Your task to perform on an android device: Set the phone to "Do not disturb". Image 0: 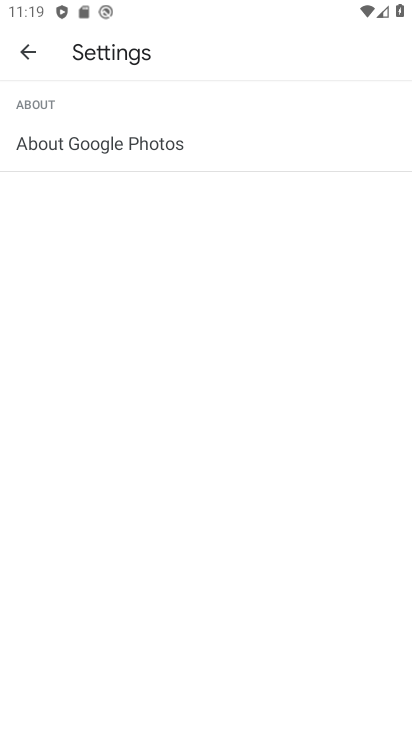
Step 0: press home button
Your task to perform on an android device: Set the phone to "Do not disturb". Image 1: 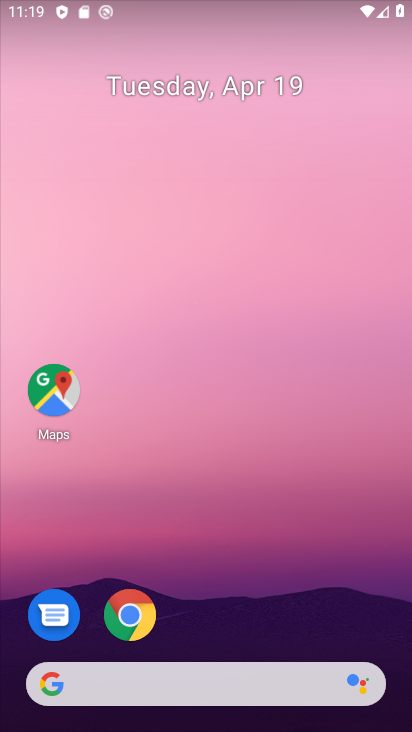
Step 1: drag from (234, 667) to (209, 215)
Your task to perform on an android device: Set the phone to "Do not disturb". Image 2: 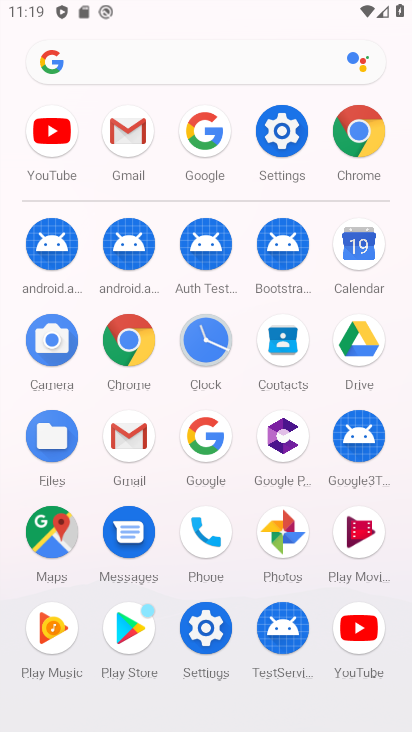
Step 2: click (290, 131)
Your task to perform on an android device: Set the phone to "Do not disturb". Image 3: 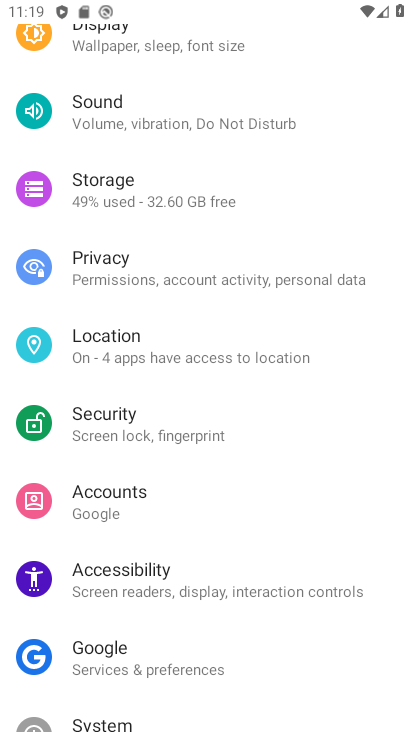
Step 3: click (137, 122)
Your task to perform on an android device: Set the phone to "Do not disturb". Image 4: 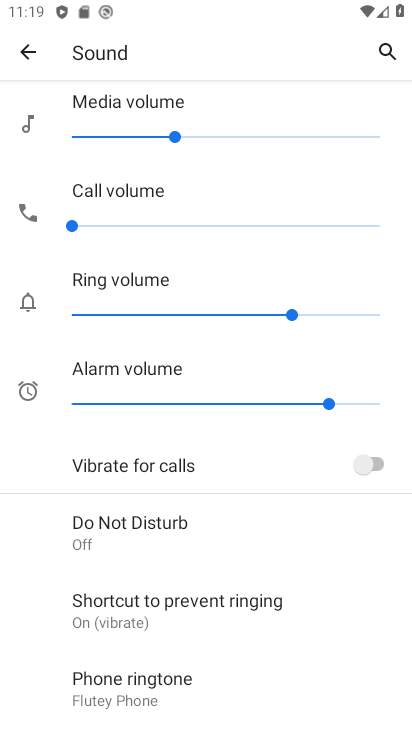
Step 4: drag from (192, 657) to (173, 280)
Your task to perform on an android device: Set the phone to "Do not disturb". Image 5: 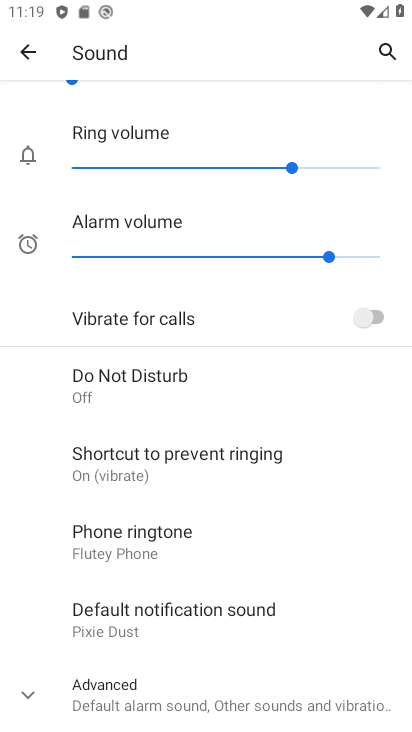
Step 5: click (134, 386)
Your task to perform on an android device: Set the phone to "Do not disturb". Image 6: 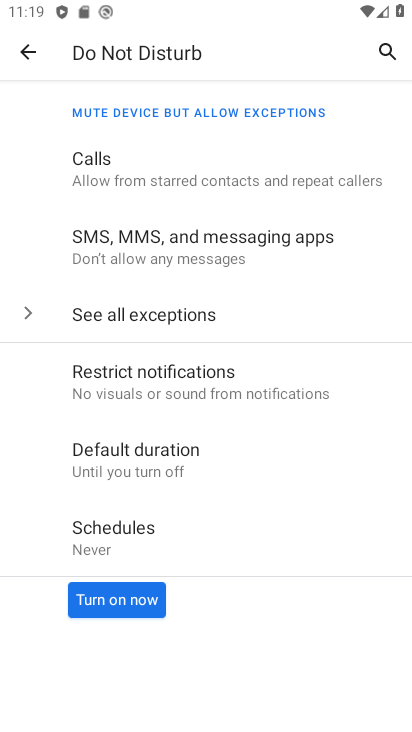
Step 6: click (132, 600)
Your task to perform on an android device: Set the phone to "Do not disturb". Image 7: 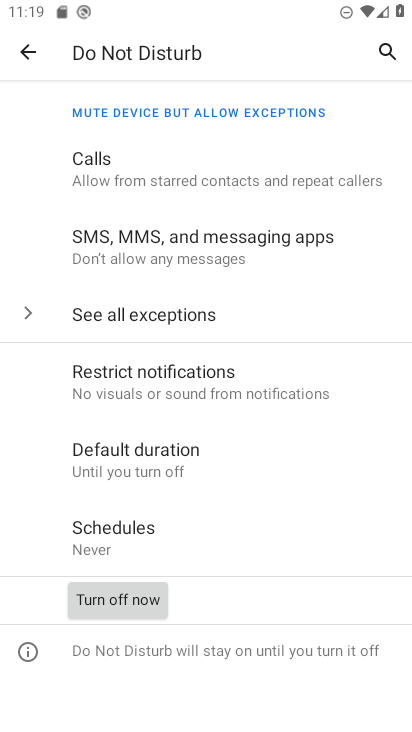
Step 7: task complete